Your task to perform on an android device: move a message to another label in the gmail app Image 0: 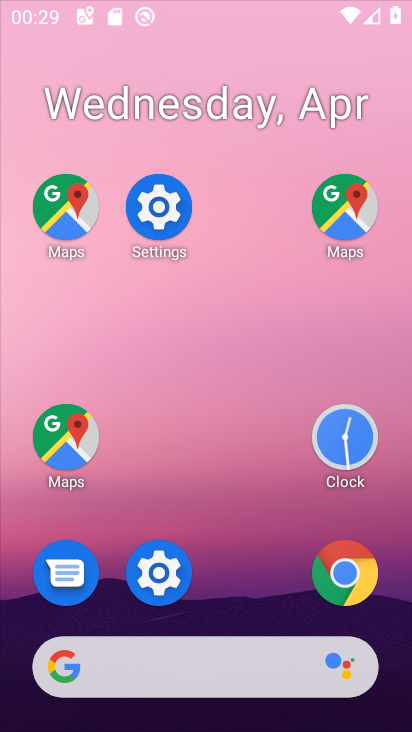
Step 0: click (164, 58)
Your task to perform on an android device: move a message to another label in the gmail app Image 1: 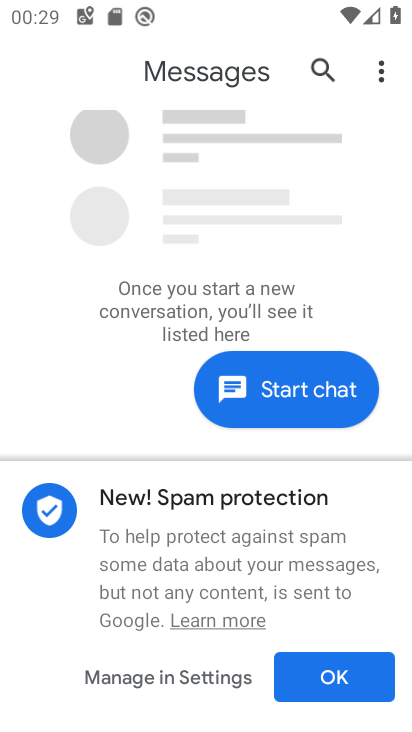
Step 1: click (333, 680)
Your task to perform on an android device: move a message to another label in the gmail app Image 2: 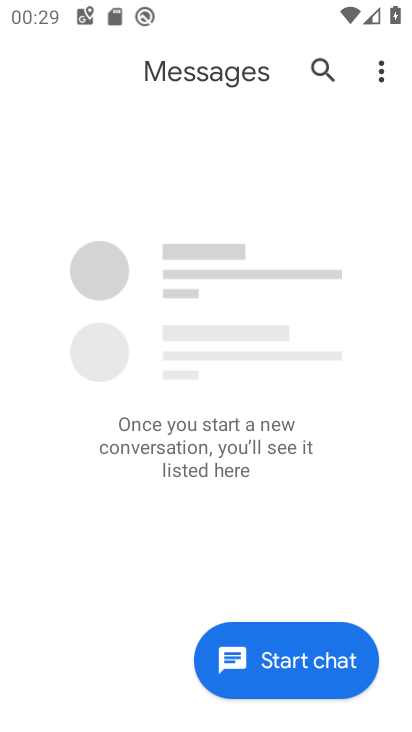
Step 2: click (275, 665)
Your task to perform on an android device: move a message to another label in the gmail app Image 3: 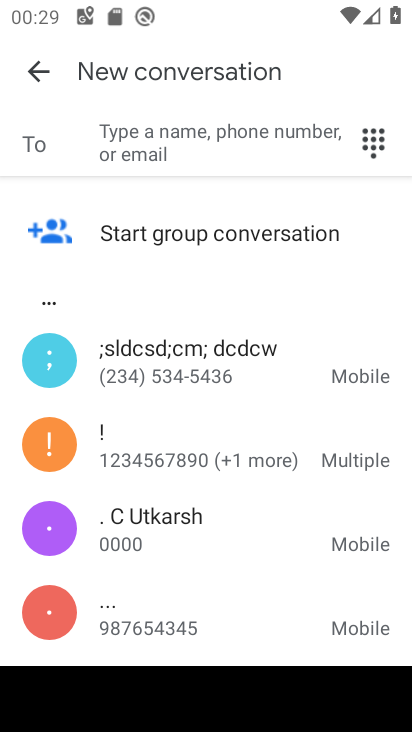
Step 3: click (283, 660)
Your task to perform on an android device: move a message to another label in the gmail app Image 4: 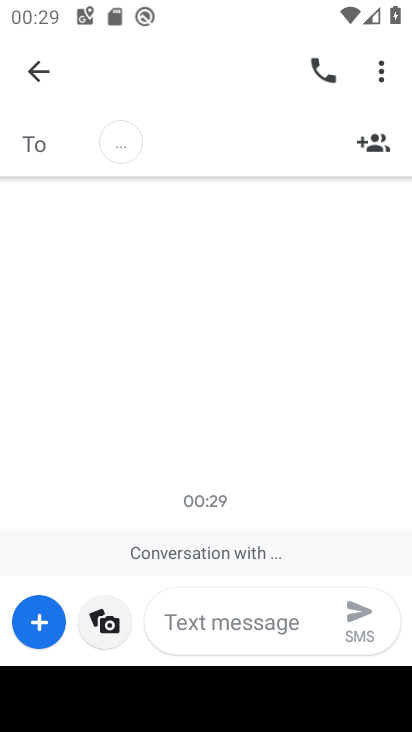
Step 4: click (29, 70)
Your task to perform on an android device: move a message to another label in the gmail app Image 5: 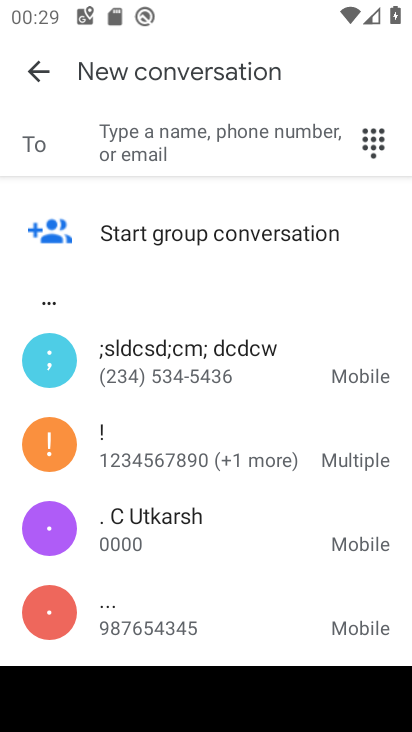
Step 5: click (33, 66)
Your task to perform on an android device: move a message to another label in the gmail app Image 6: 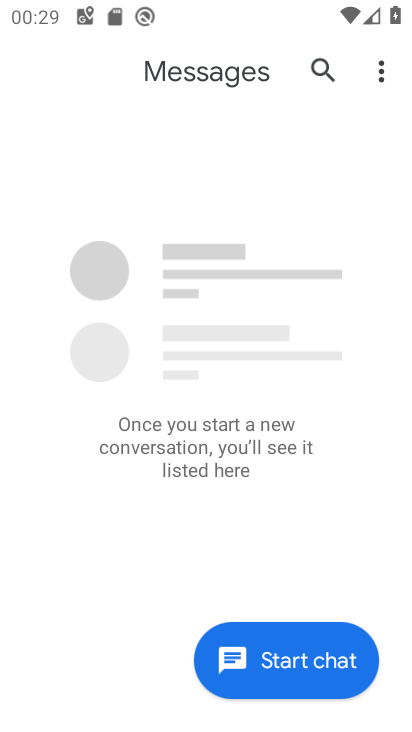
Step 6: click (33, 66)
Your task to perform on an android device: move a message to another label in the gmail app Image 7: 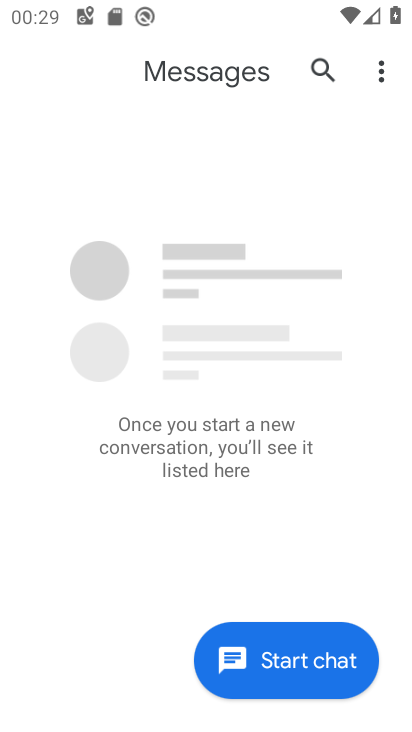
Step 7: click (300, 649)
Your task to perform on an android device: move a message to another label in the gmail app Image 8: 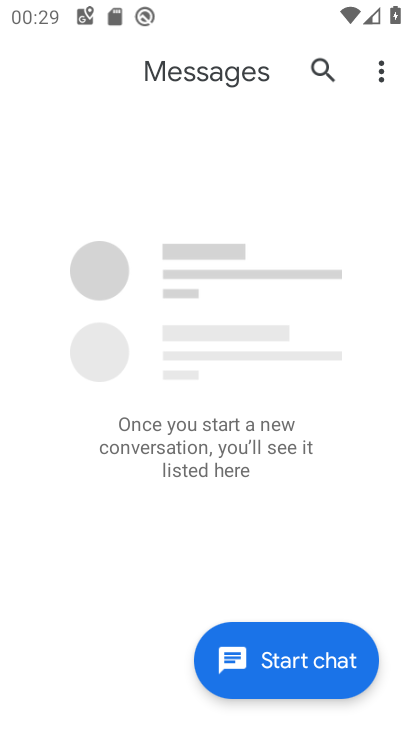
Step 8: click (296, 653)
Your task to perform on an android device: move a message to another label in the gmail app Image 9: 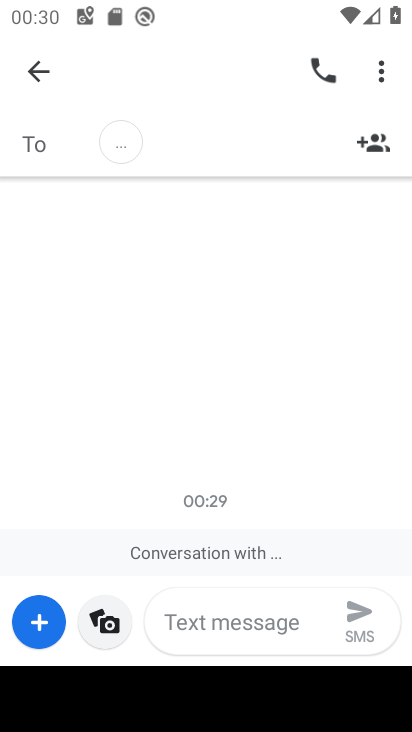
Step 9: click (28, 66)
Your task to perform on an android device: move a message to another label in the gmail app Image 10: 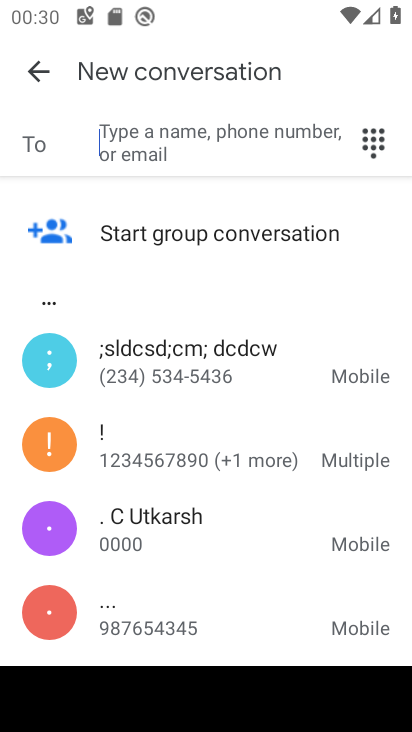
Step 10: click (35, 68)
Your task to perform on an android device: move a message to another label in the gmail app Image 11: 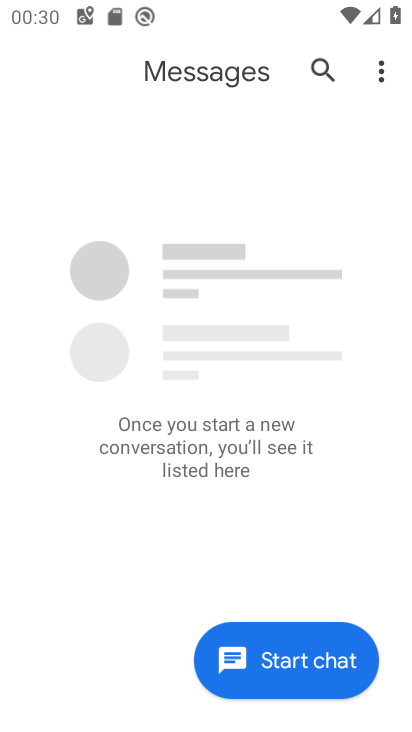
Step 11: press home button
Your task to perform on an android device: move a message to another label in the gmail app Image 12: 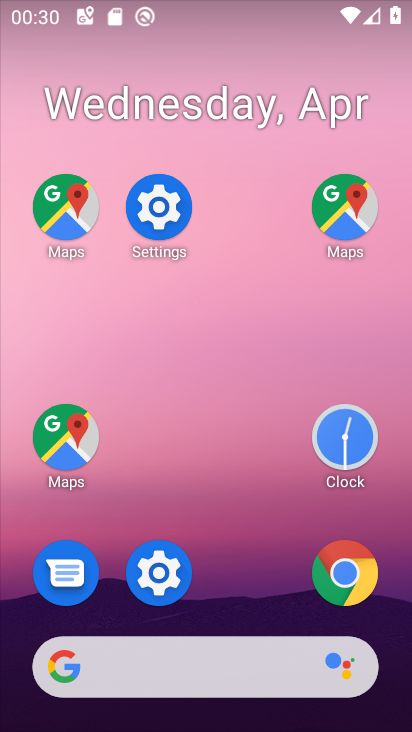
Step 12: drag from (230, 529) to (67, 156)
Your task to perform on an android device: move a message to another label in the gmail app Image 13: 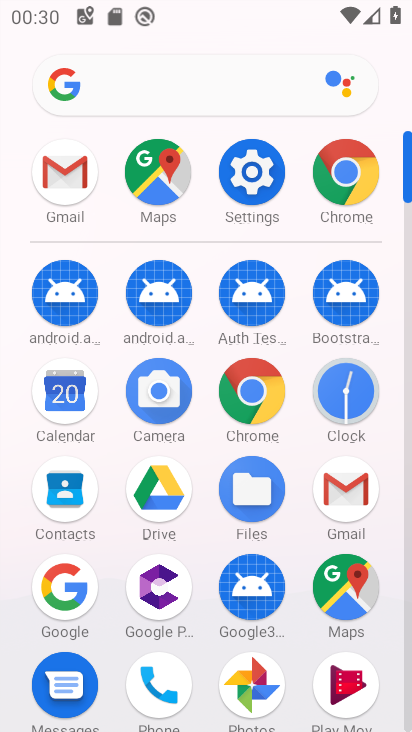
Step 13: click (342, 472)
Your task to perform on an android device: move a message to another label in the gmail app Image 14: 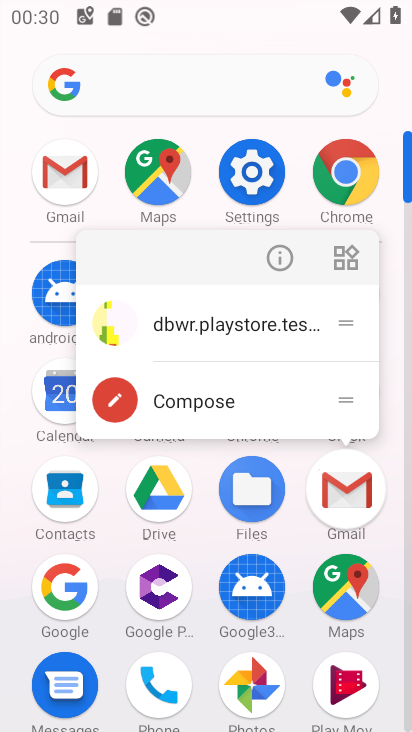
Step 14: click (329, 465)
Your task to perform on an android device: move a message to another label in the gmail app Image 15: 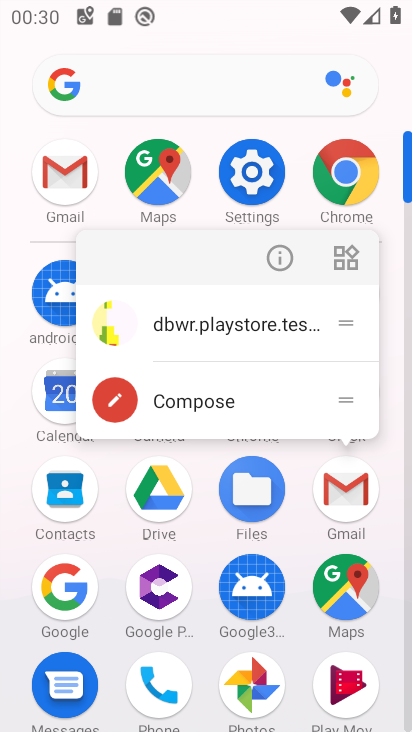
Step 15: click (331, 486)
Your task to perform on an android device: move a message to another label in the gmail app Image 16: 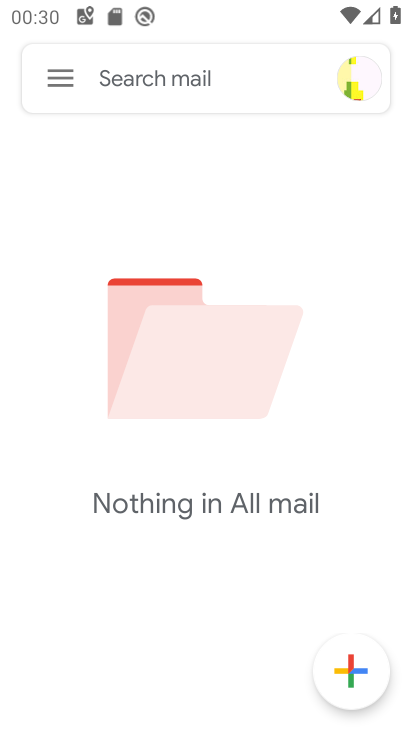
Step 16: click (55, 83)
Your task to perform on an android device: move a message to another label in the gmail app Image 17: 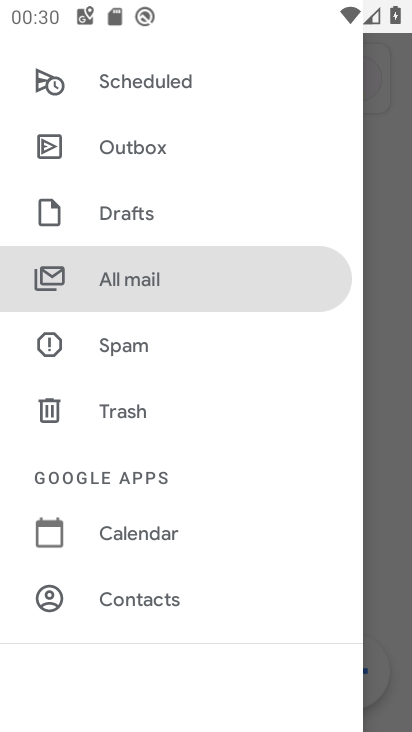
Step 17: click (123, 308)
Your task to perform on an android device: move a message to another label in the gmail app Image 18: 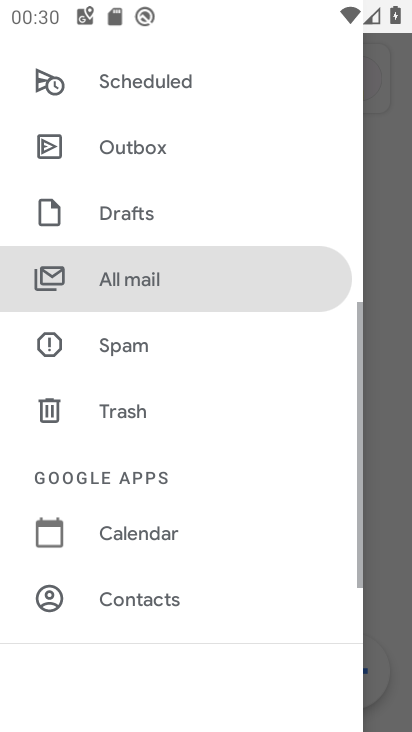
Step 18: click (114, 280)
Your task to perform on an android device: move a message to another label in the gmail app Image 19: 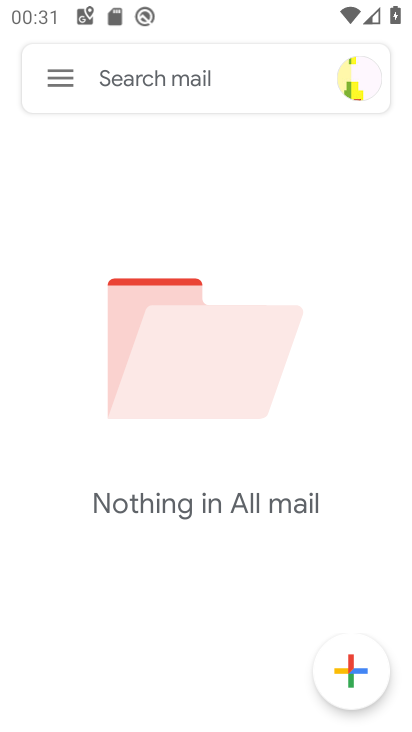
Step 19: task complete